Your task to perform on an android device: turn off notifications settings in the gmail app Image 0: 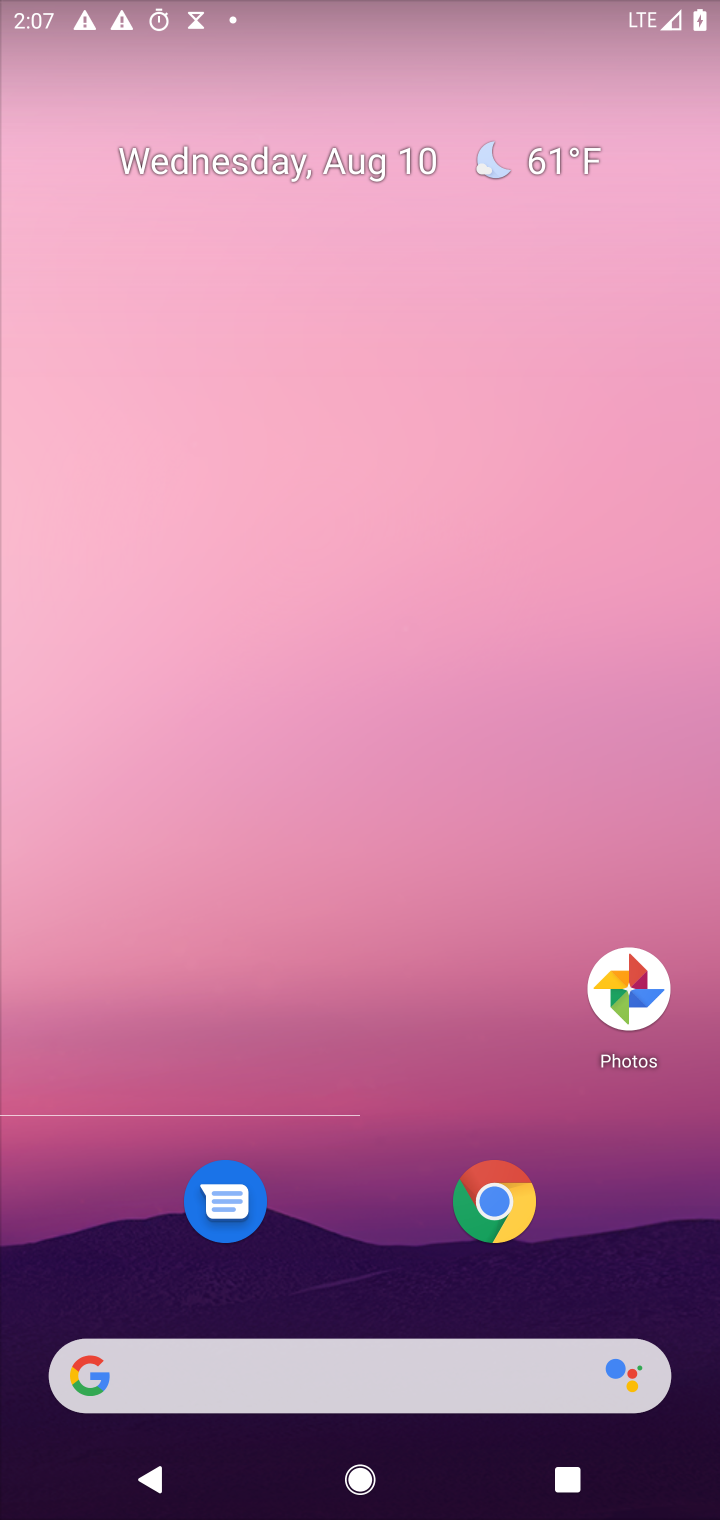
Step 0: press home button
Your task to perform on an android device: turn off notifications settings in the gmail app Image 1: 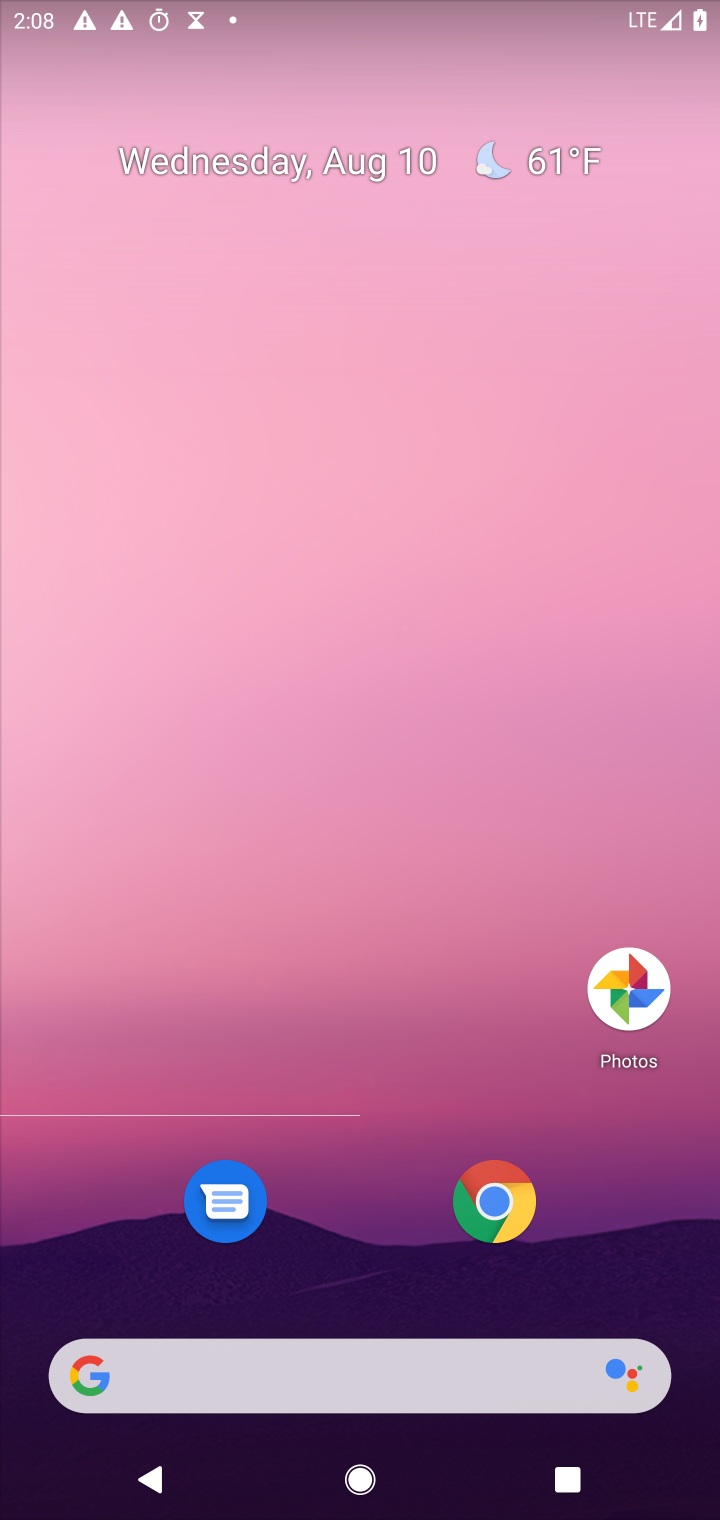
Step 1: drag from (292, 922) to (478, 93)
Your task to perform on an android device: turn off notifications settings in the gmail app Image 2: 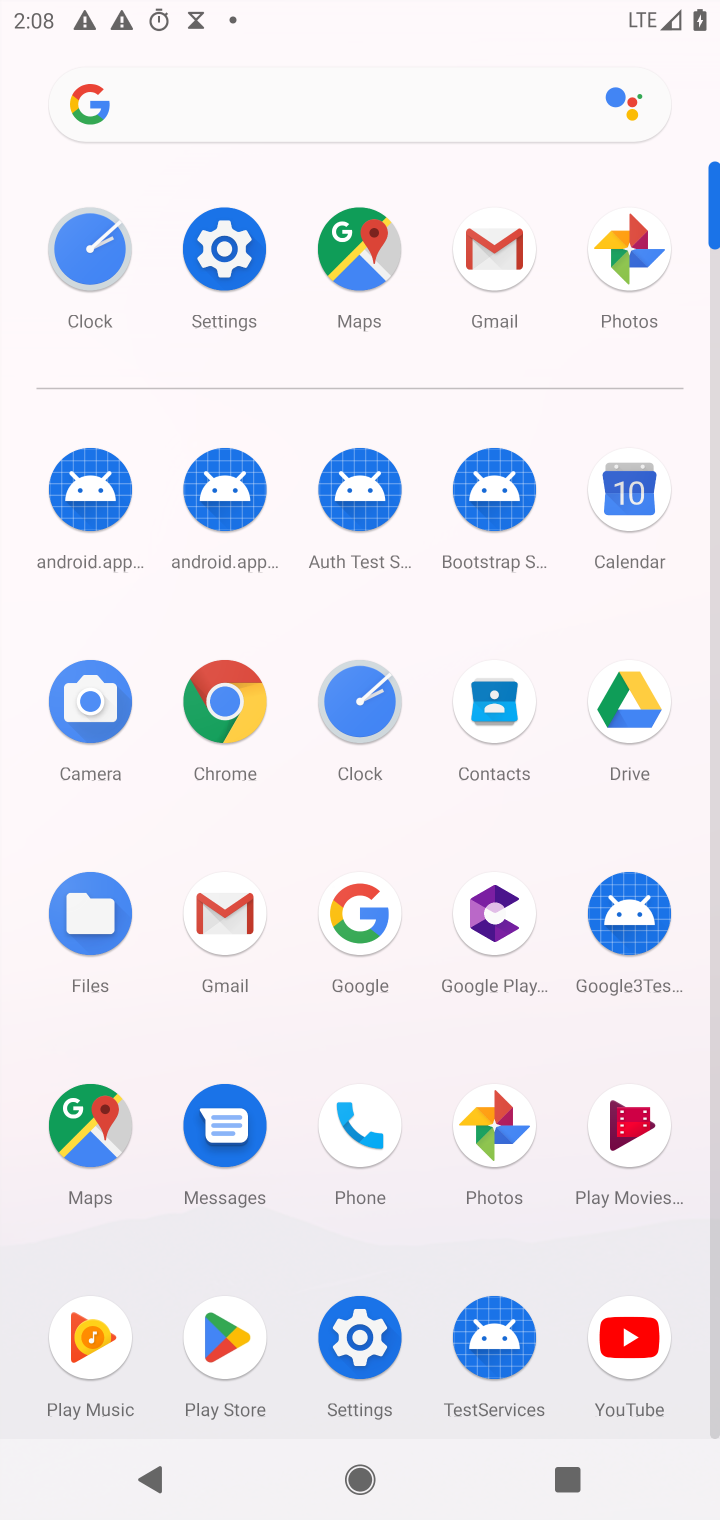
Step 2: click (490, 259)
Your task to perform on an android device: turn off notifications settings in the gmail app Image 3: 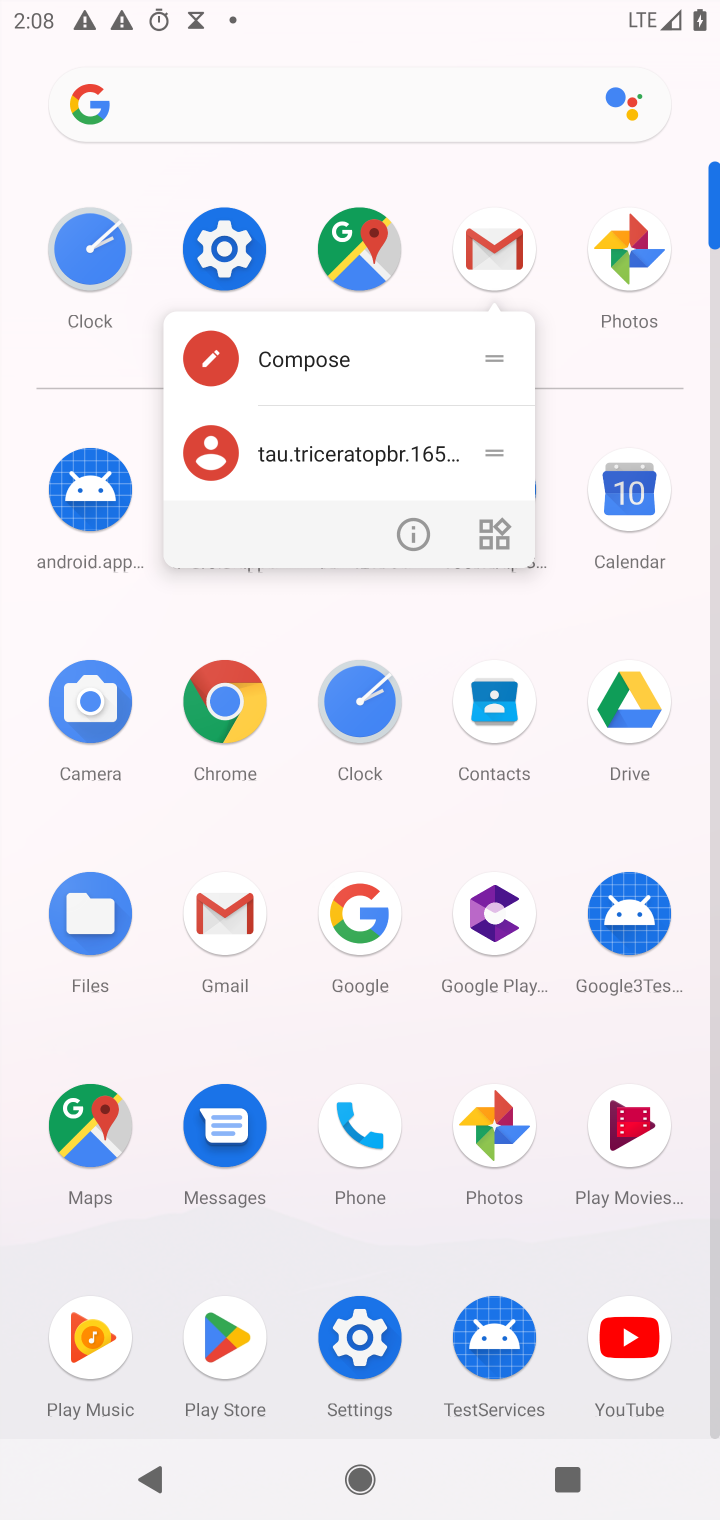
Step 3: click (488, 258)
Your task to perform on an android device: turn off notifications settings in the gmail app Image 4: 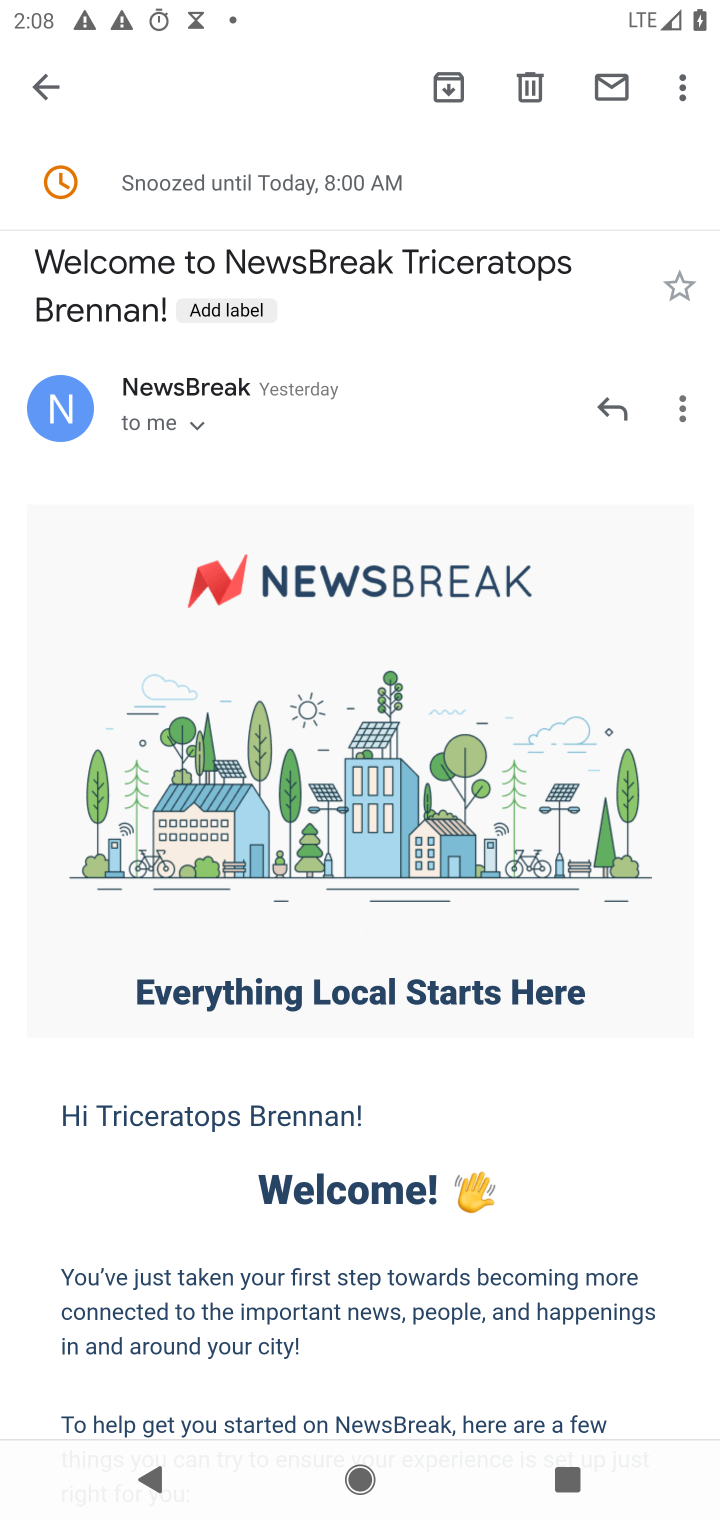
Step 4: press back button
Your task to perform on an android device: turn off notifications settings in the gmail app Image 5: 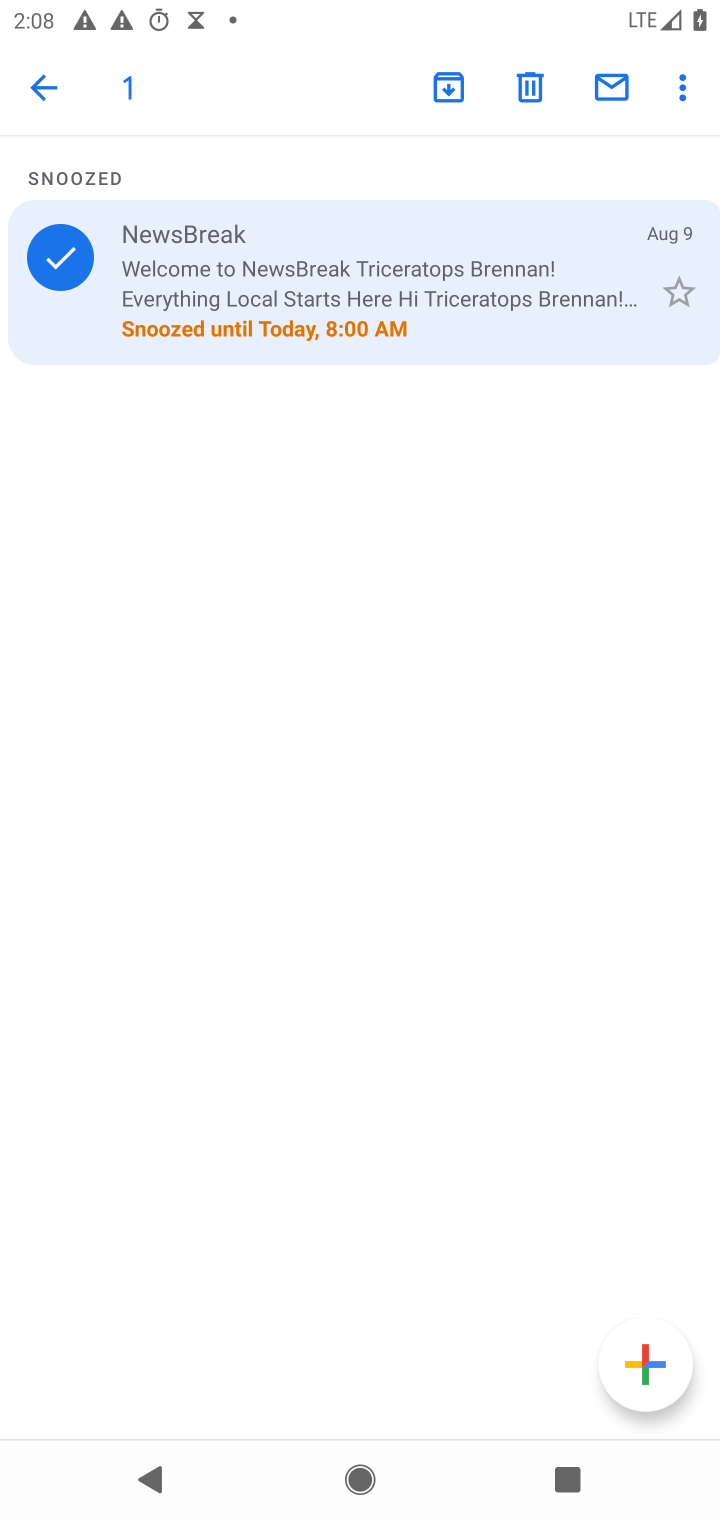
Step 5: press back button
Your task to perform on an android device: turn off notifications settings in the gmail app Image 6: 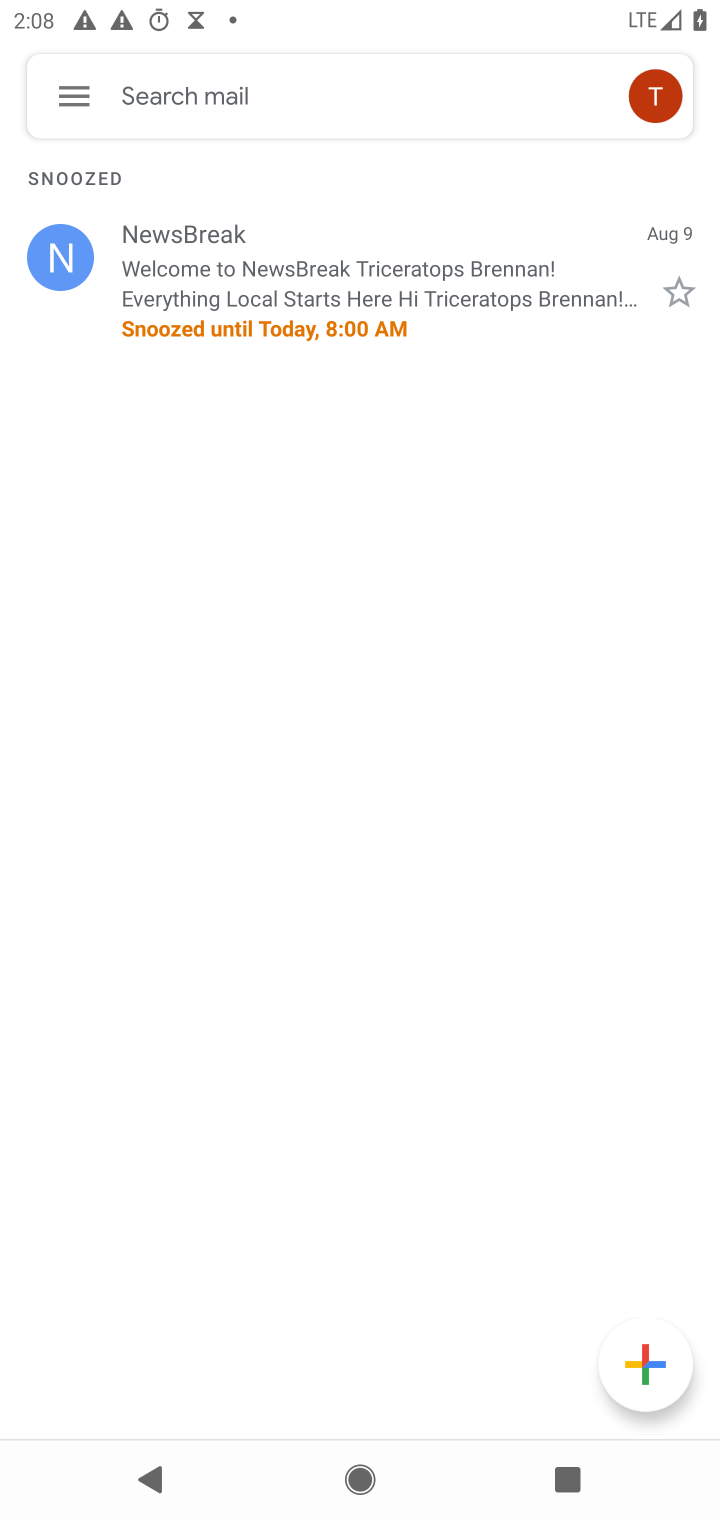
Step 6: press back button
Your task to perform on an android device: turn off notifications settings in the gmail app Image 7: 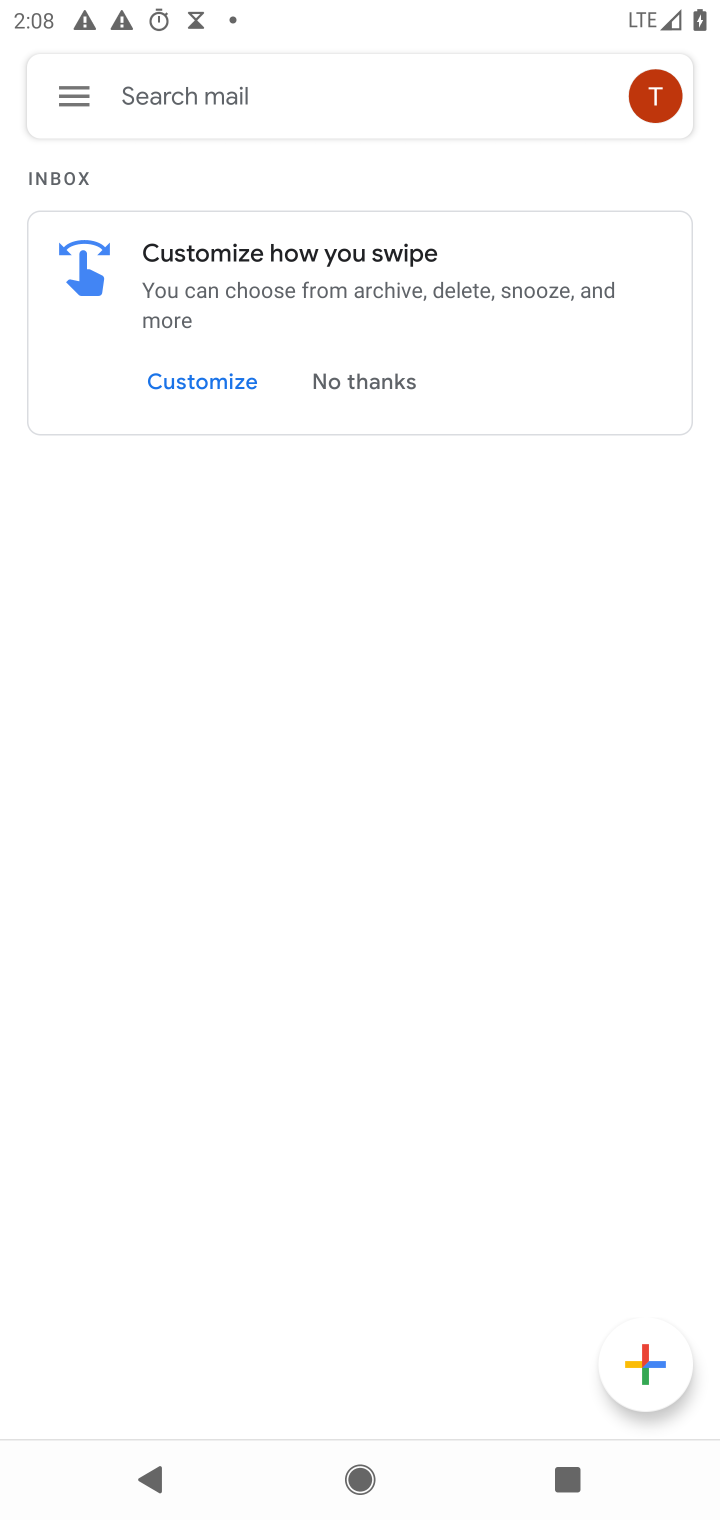
Step 7: click (84, 103)
Your task to perform on an android device: turn off notifications settings in the gmail app Image 8: 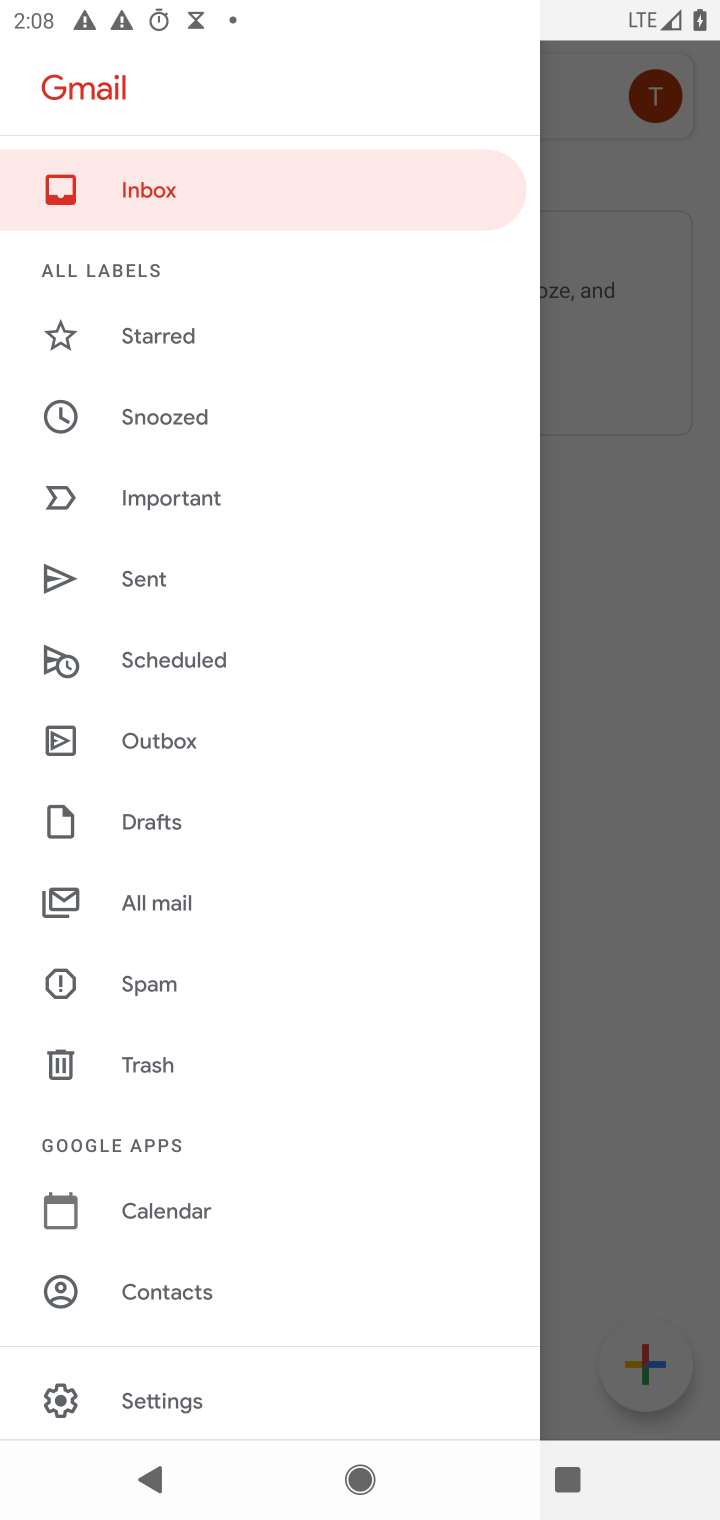
Step 8: click (150, 1407)
Your task to perform on an android device: turn off notifications settings in the gmail app Image 9: 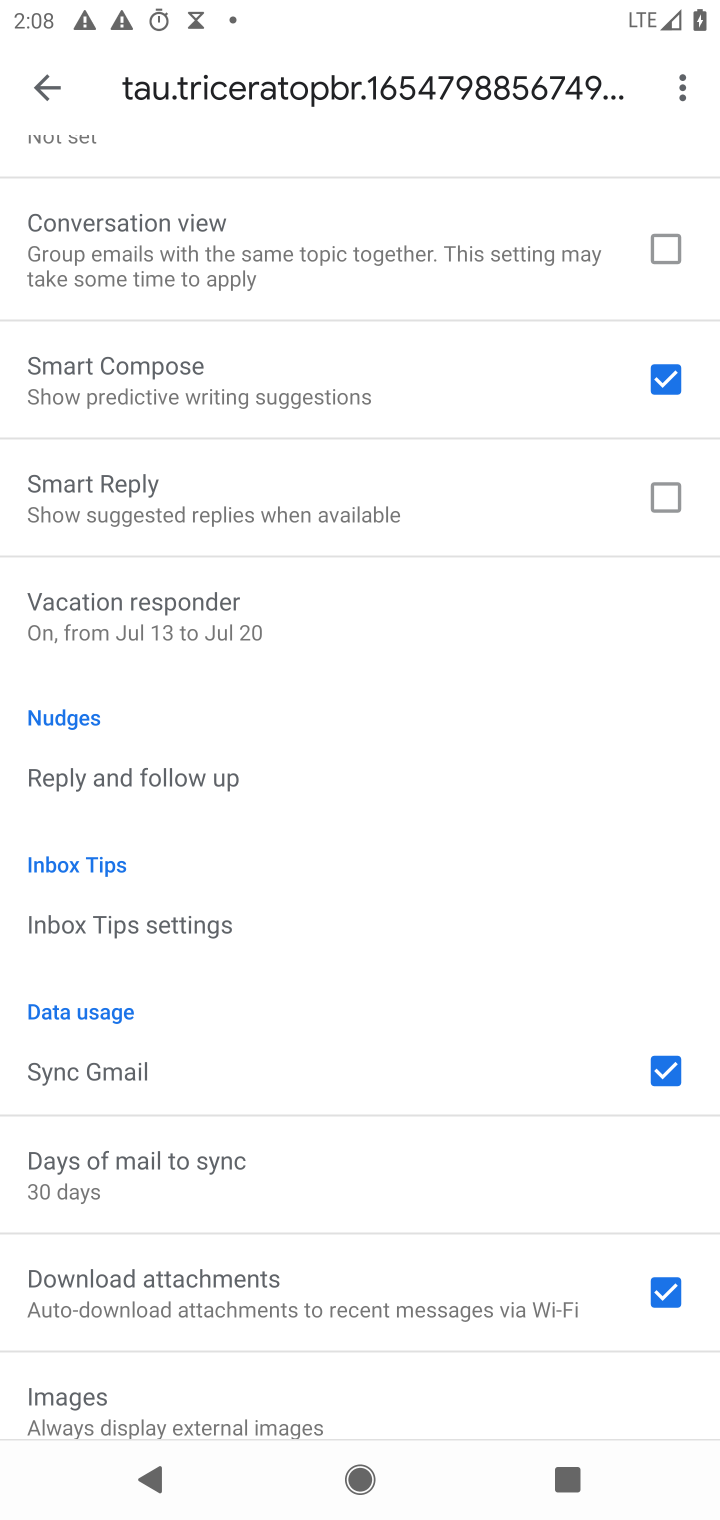
Step 9: drag from (345, 324) to (325, 1159)
Your task to perform on an android device: turn off notifications settings in the gmail app Image 10: 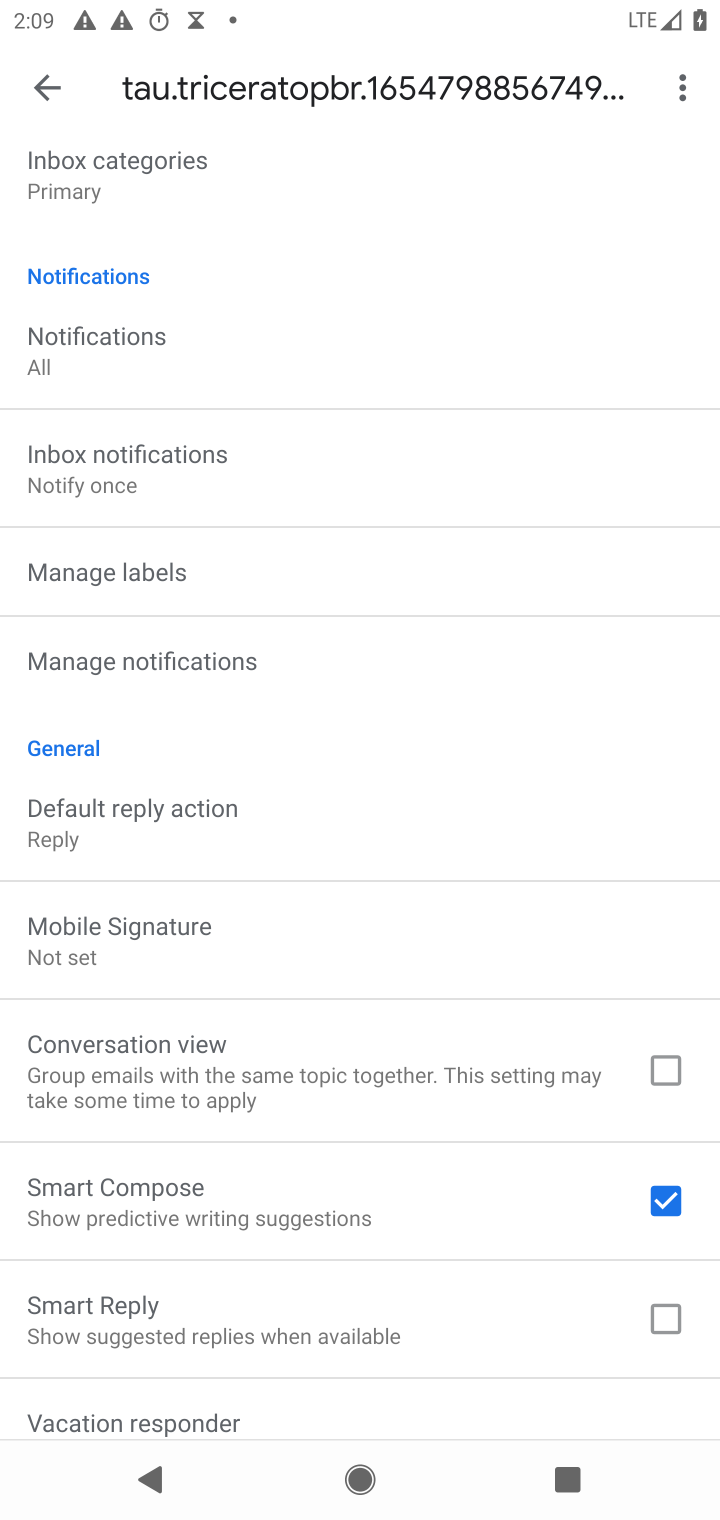
Step 10: click (111, 666)
Your task to perform on an android device: turn off notifications settings in the gmail app Image 11: 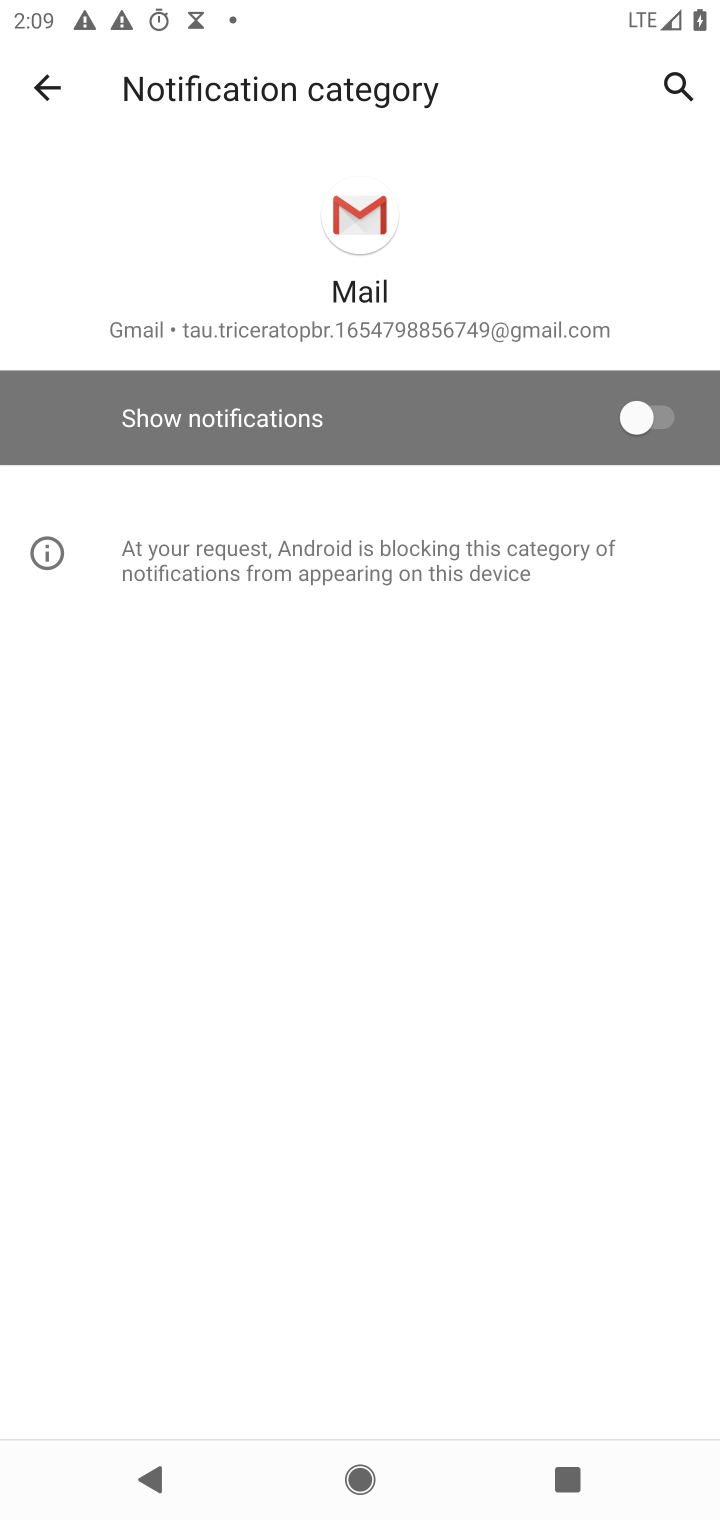
Step 11: task complete